Your task to perform on an android device: check google app version Image 0: 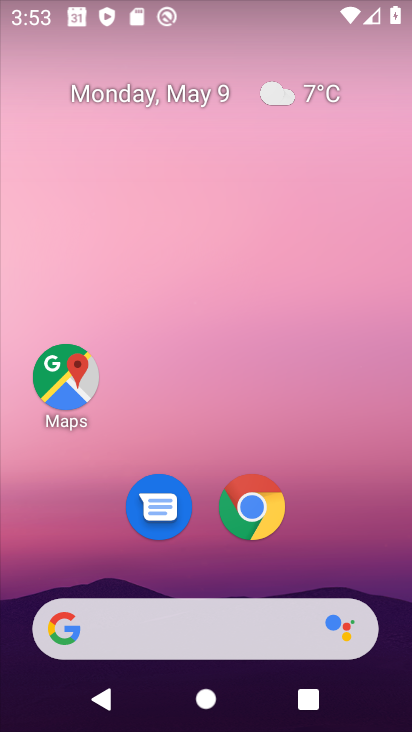
Step 0: drag from (285, 626) to (313, 202)
Your task to perform on an android device: check google app version Image 1: 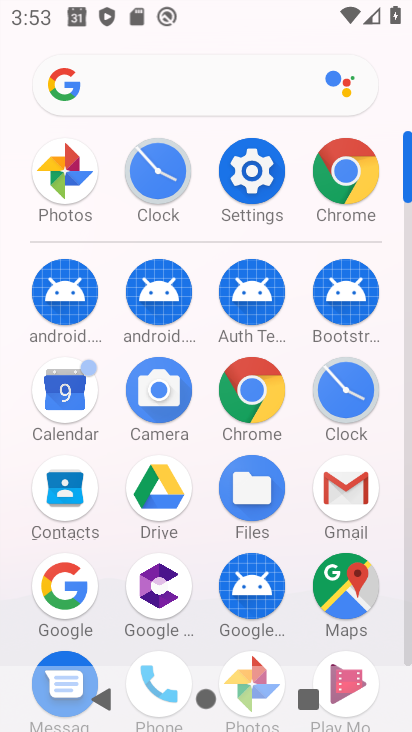
Step 1: click (338, 172)
Your task to perform on an android device: check google app version Image 2: 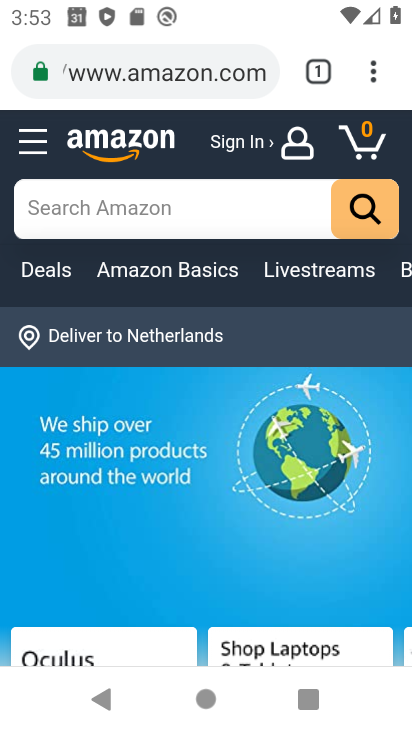
Step 2: click (358, 90)
Your task to perform on an android device: check google app version Image 3: 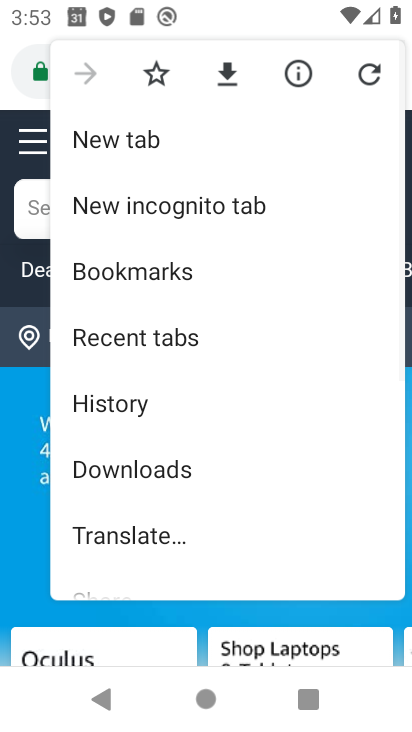
Step 3: drag from (207, 506) to (235, 352)
Your task to perform on an android device: check google app version Image 4: 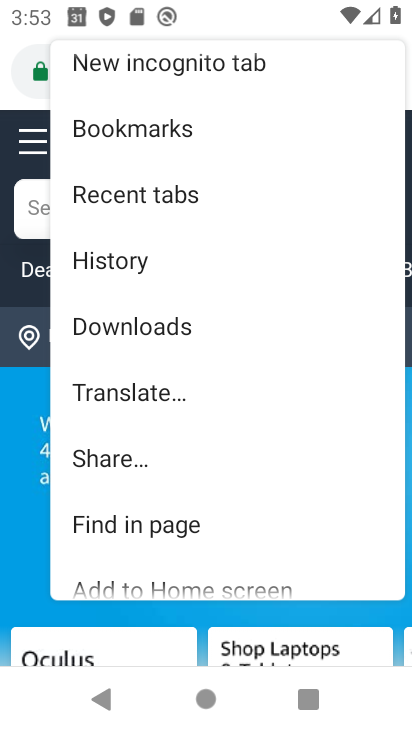
Step 4: drag from (178, 536) to (210, 384)
Your task to perform on an android device: check google app version Image 5: 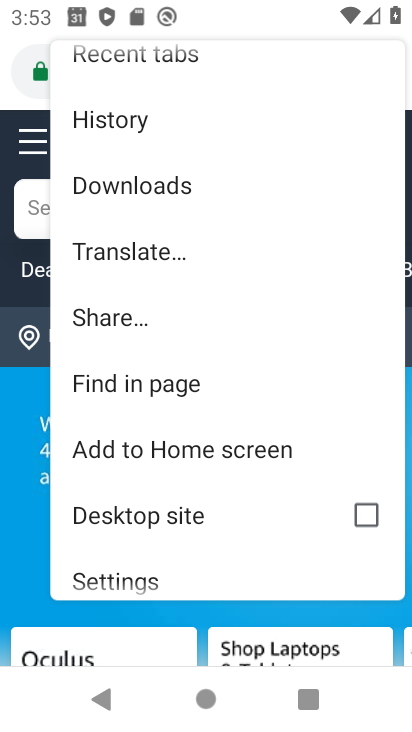
Step 5: click (149, 579)
Your task to perform on an android device: check google app version Image 6: 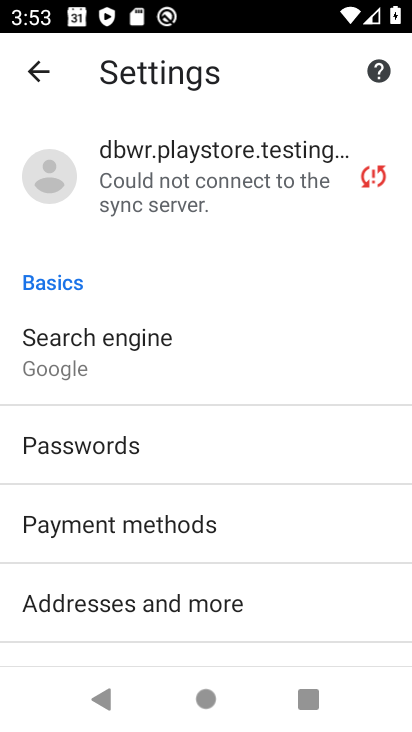
Step 6: drag from (220, 447) to (201, 151)
Your task to perform on an android device: check google app version Image 7: 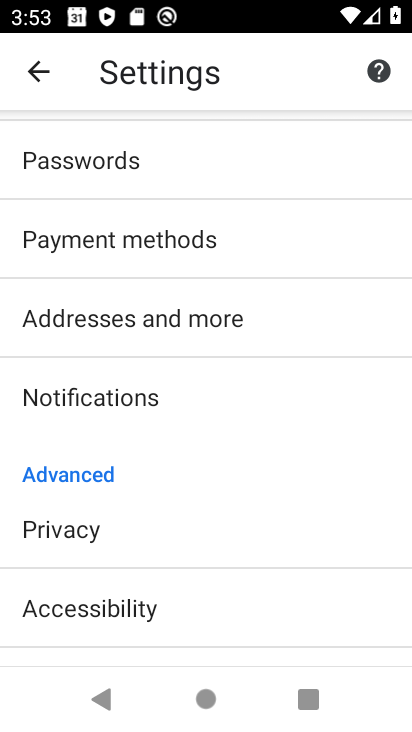
Step 7: drag from (204, 572) to (195, 212)
Your task to perform on an android device: check google app version Image 8: 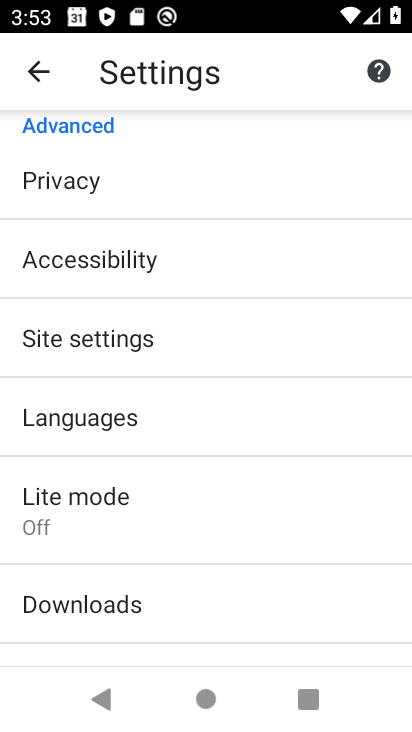
Step 8: drag from (153, 587) to (142, 268)
Your task to perform on an android device: check google app version Image 9: 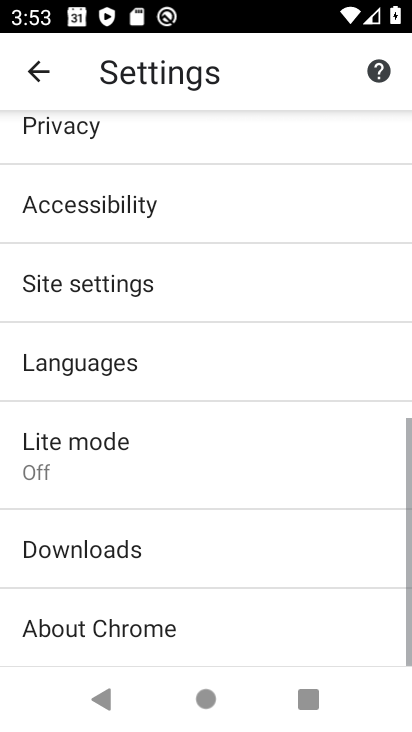
Step 9: click (105, 617)
Your task to perform on an android device: check google app version Image 10: 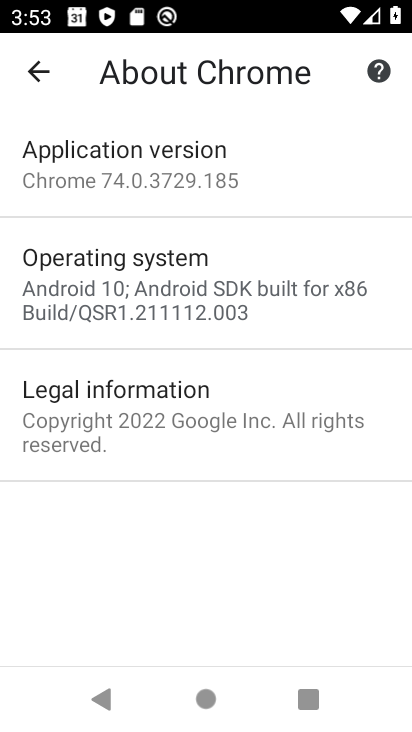
Step 10: click (91, 182)
Your task to perform on an android device: check google app version Image 11: 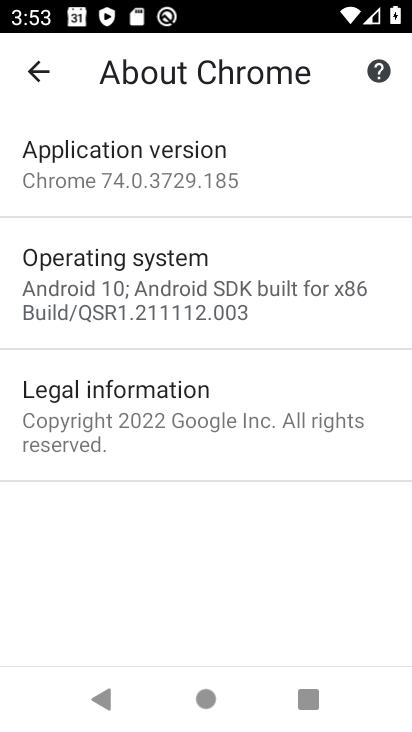
Step 11: task complete